Your task to perform on an android device: toggle translation in the chrome app Image 0: 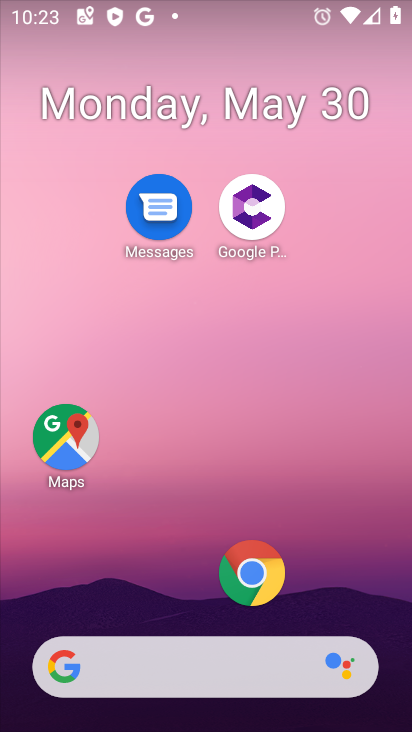
Step 0: drag from (137, 611) to (212, 177)
Your task to perform on an android device: toggle translation in the chrome app Image 1: 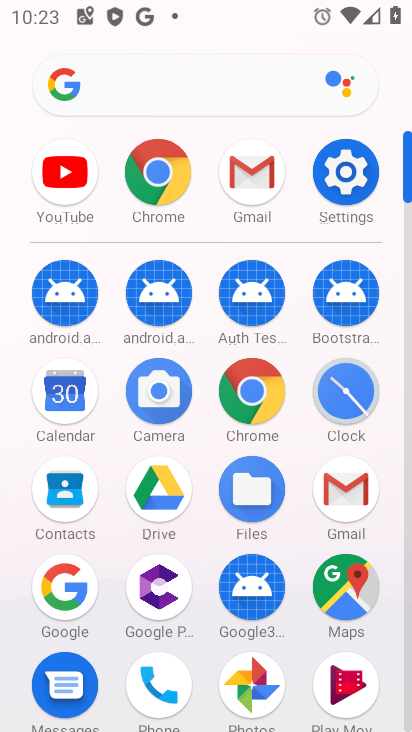
Step 1: click (174, 196)
Your task to perform on an android device: toggle translation in the chrome app Image 2: 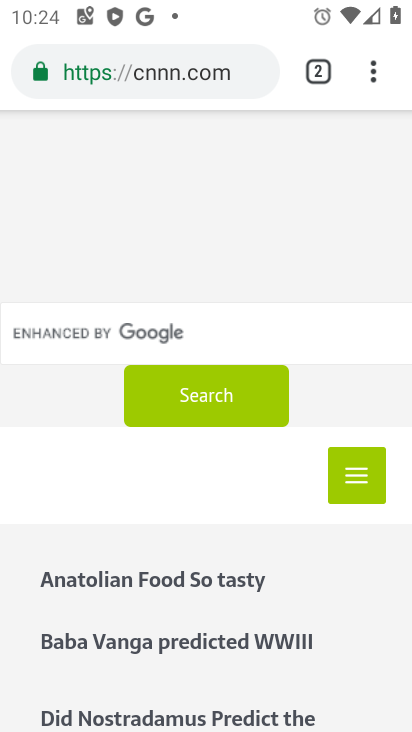
Step 2: click (374, 83)
Your task to perform on an android device: toggle translation in the chrome app Image 3: 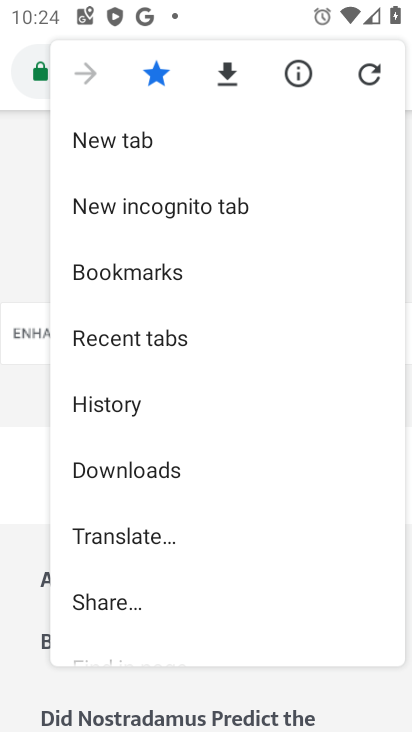
Step 3: click (164, 544)
Your task to perform on an android device: toggle translation in the chrome app Image 4: 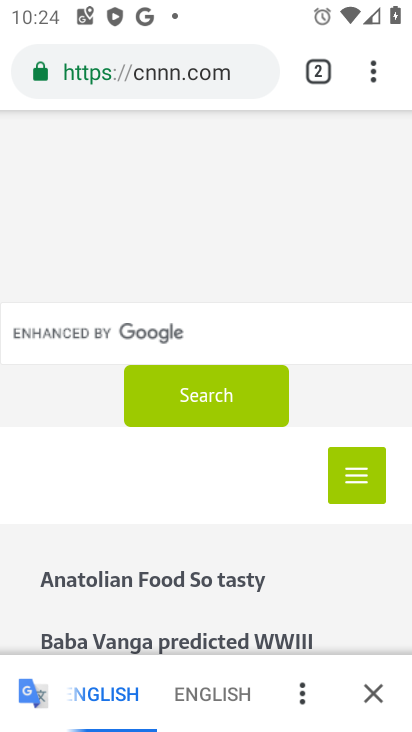
Step 4: click (301, 686)
Your task to perform on an android device: toggle translation in the chrome app Image 5: 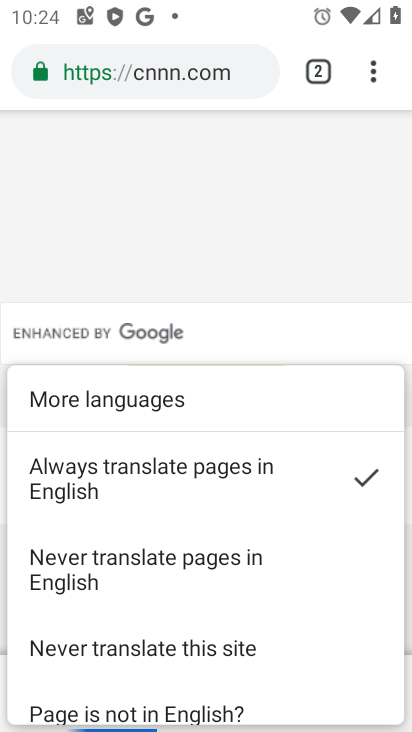
Step 5: drag from (198, 652) to (215, 507)
Your task to perform on an android device: toggle translation in the chrome app Image 6: 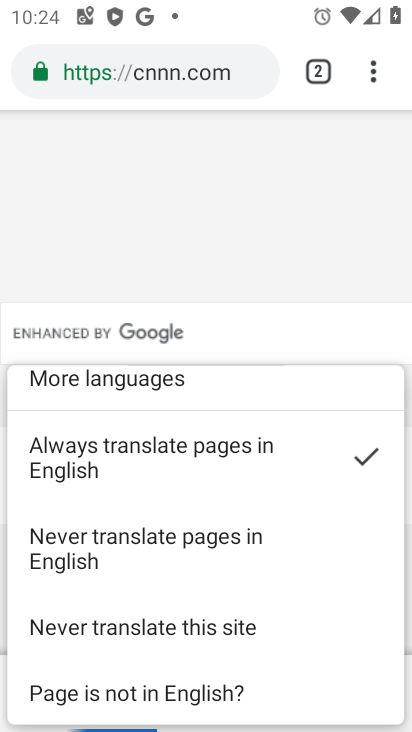
Step 6: click (220, 639)
Your task to perform on an android device: toggle translation in the chrome app Image 7: 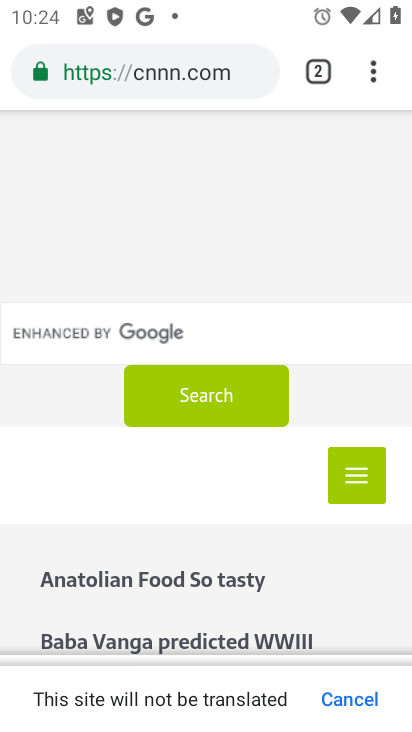
Step 7: task complete